Your task to perform on an android device: Open location settings Image 0: 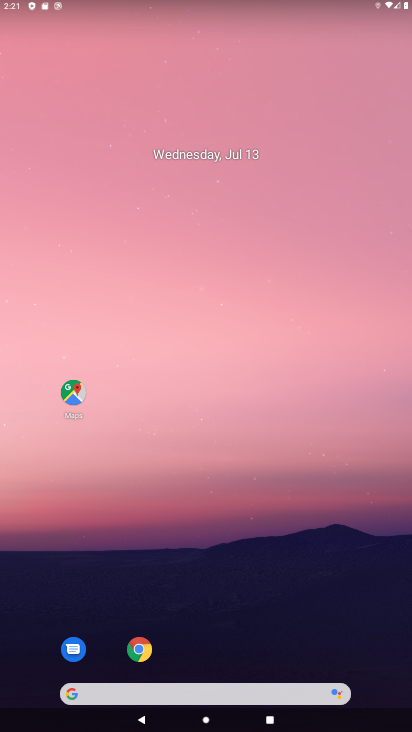
Step 0: drag from (215, 554) to (211, 163)
Your task to perform on an android device: Open location settings Image 1: 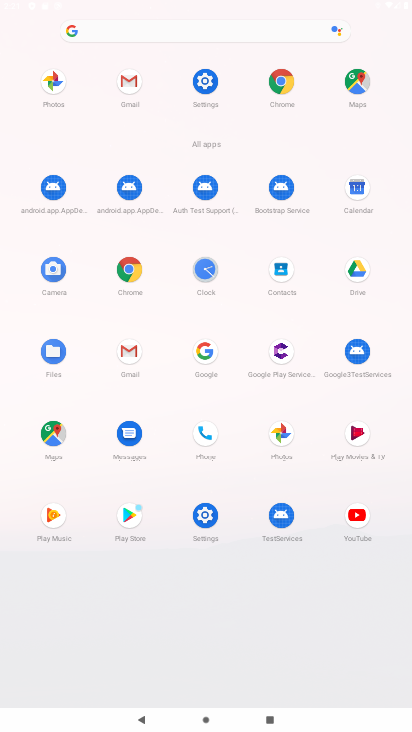
Step 1: click (203, 79)
Your task to perform on an android device: Open location settings Image 2: 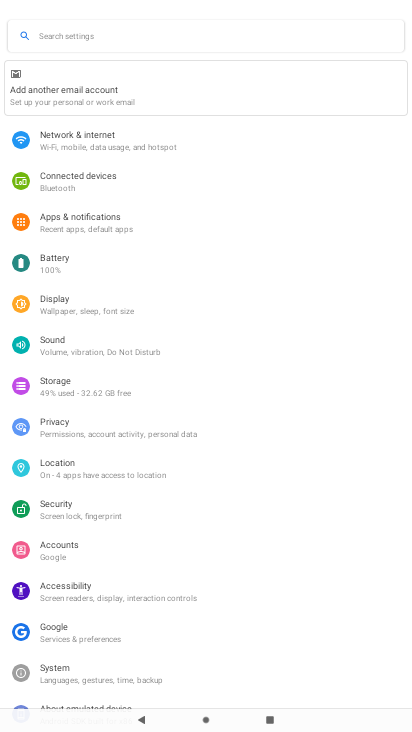
Step 2: click (58, 465)
Your task to perform on an android device: Open location settings Image 3: 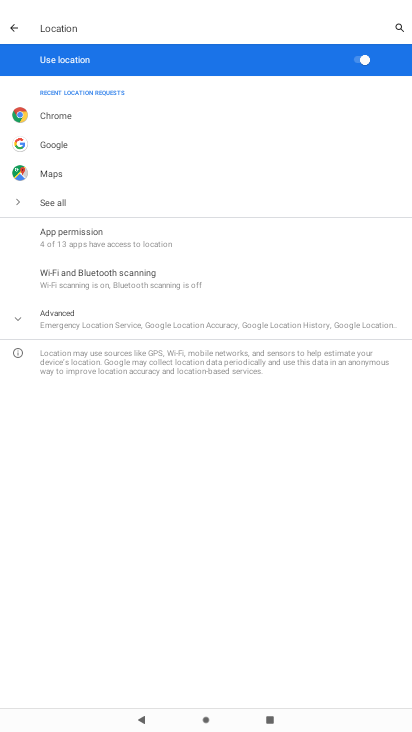
Step 3: task complete